Your task to perform on an android device: Go to internet settings Image 0: 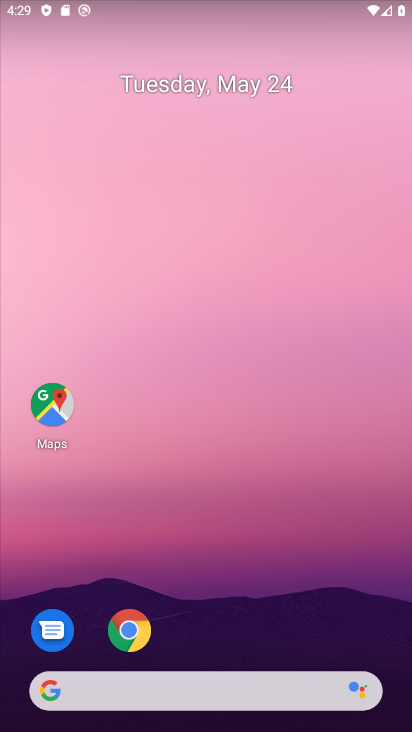
Step 0: drag from (165, 9) to (190, 595)
Your task to perform on an android device: Go to internet settings Image 1: 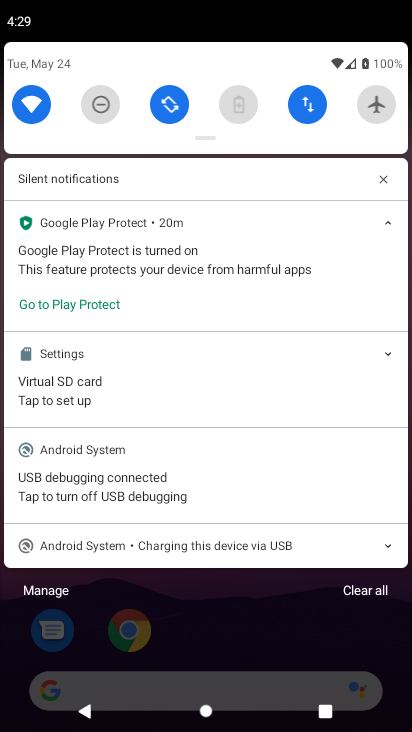
Step 1: click (327, 98)
Your task to perform on an android device: Go to internet settings Image 2: 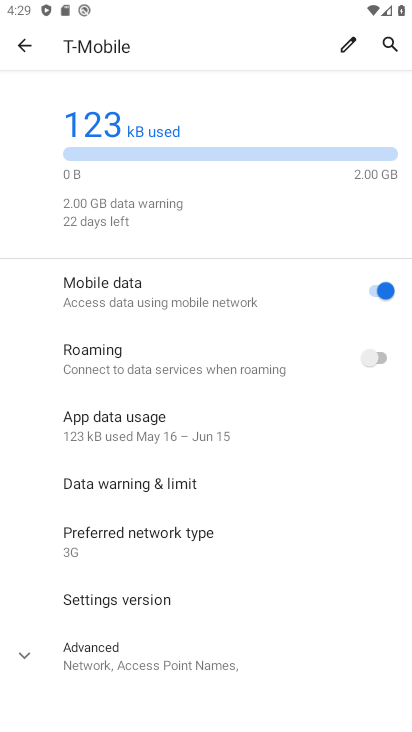
Step 2: task complete